Your task to perform on an android device: Open calendar and show me the first week of next month Image 0: 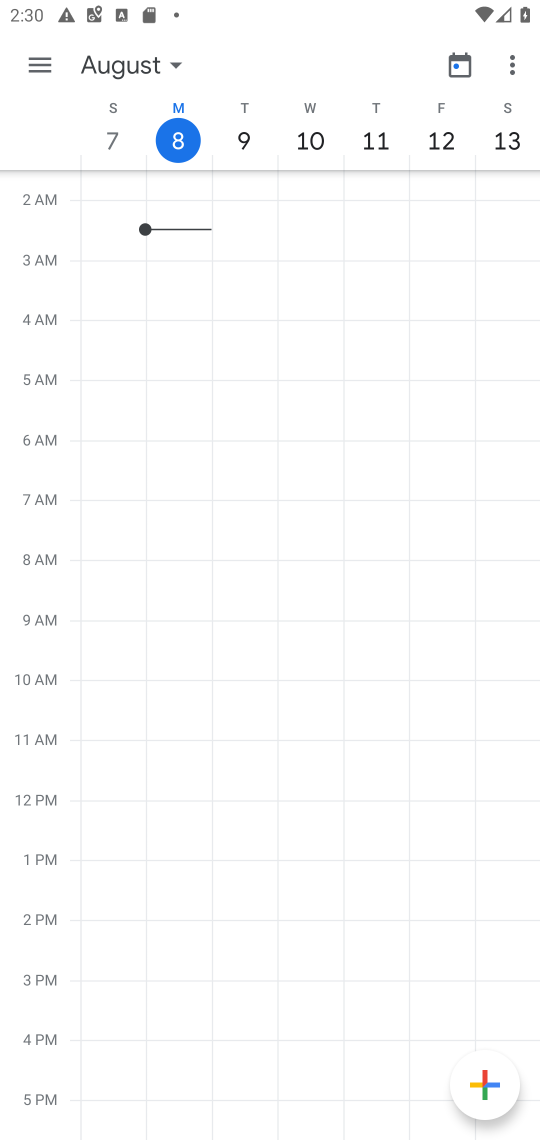
Step 0: press home button
Your task to perform on an android device: Open calendar and show me the first week of next month Image 1: 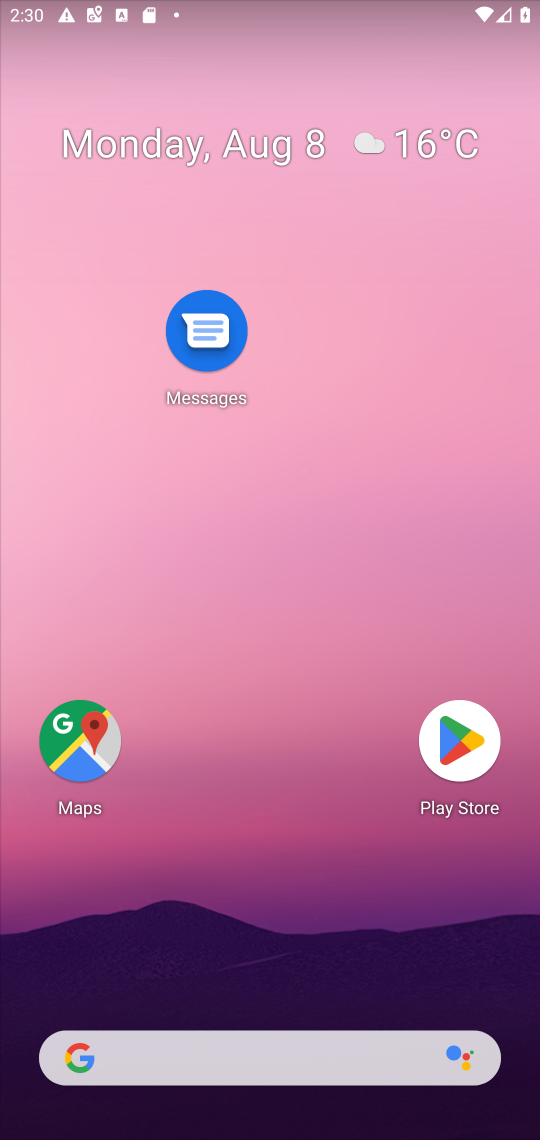
Step 1: drag from (313, 1072) to (288, 98)
Your task to perform on an android device: Open calendar and show me the first week of next month Image 2: 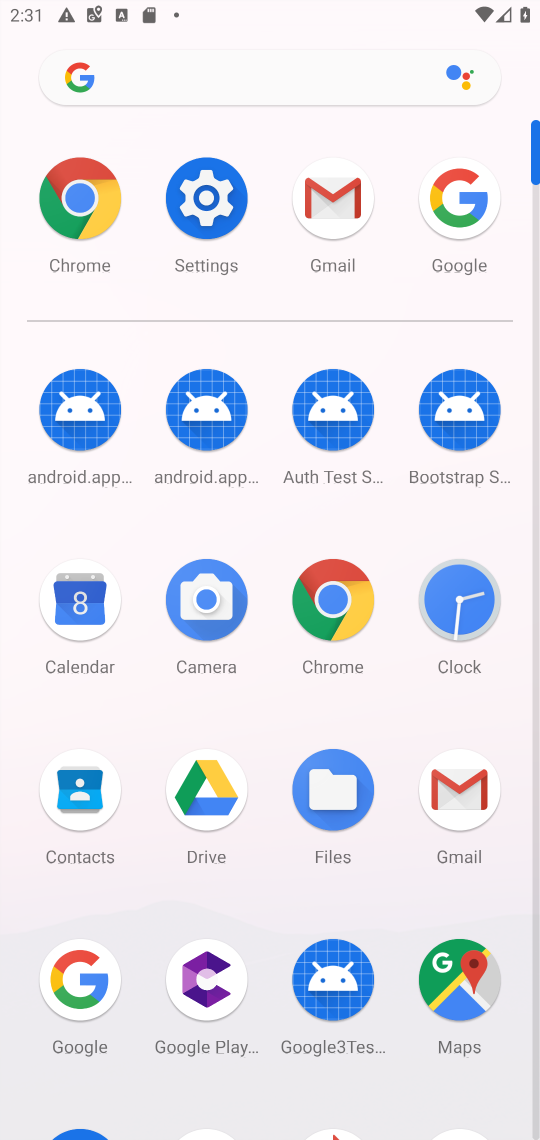
Step 2: click (77, 620)
Your task to perform on an android device: Open calendar and show me the first week of next month Image 3: 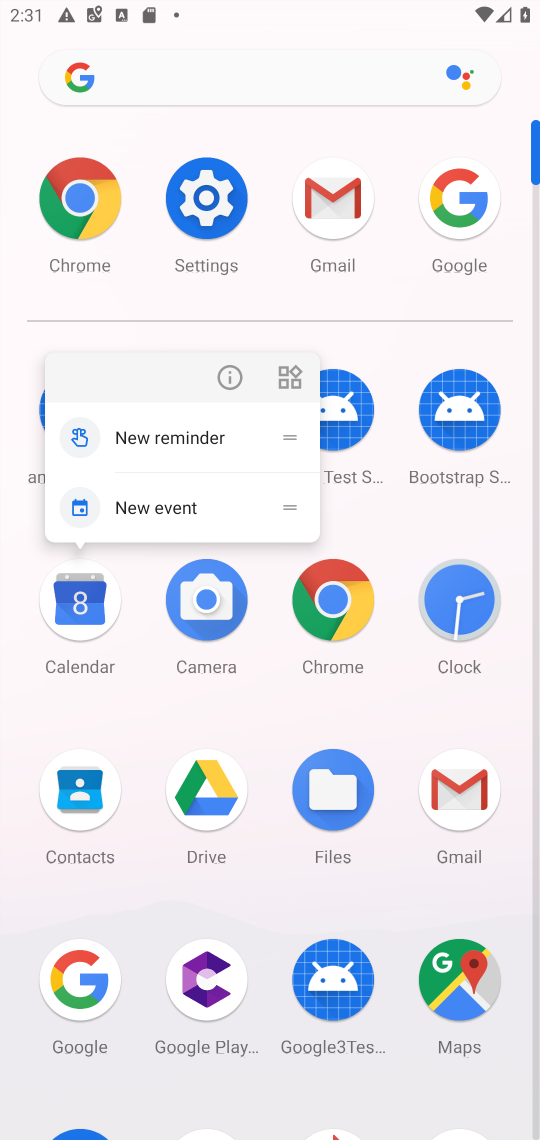
Step 3: click (77, 620)
Your task to perform on an android device: Open calendar and show me the first week of next month Image 4: 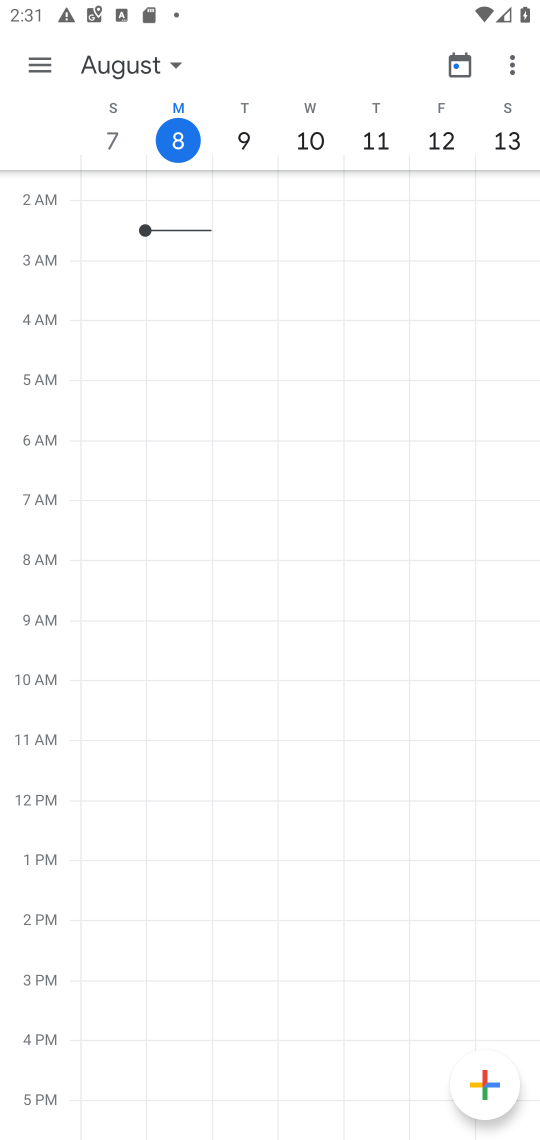
Step 4: click (179, 61)
Your task to perform on an android device: Open calendar and show me the first week of next month Image 5: 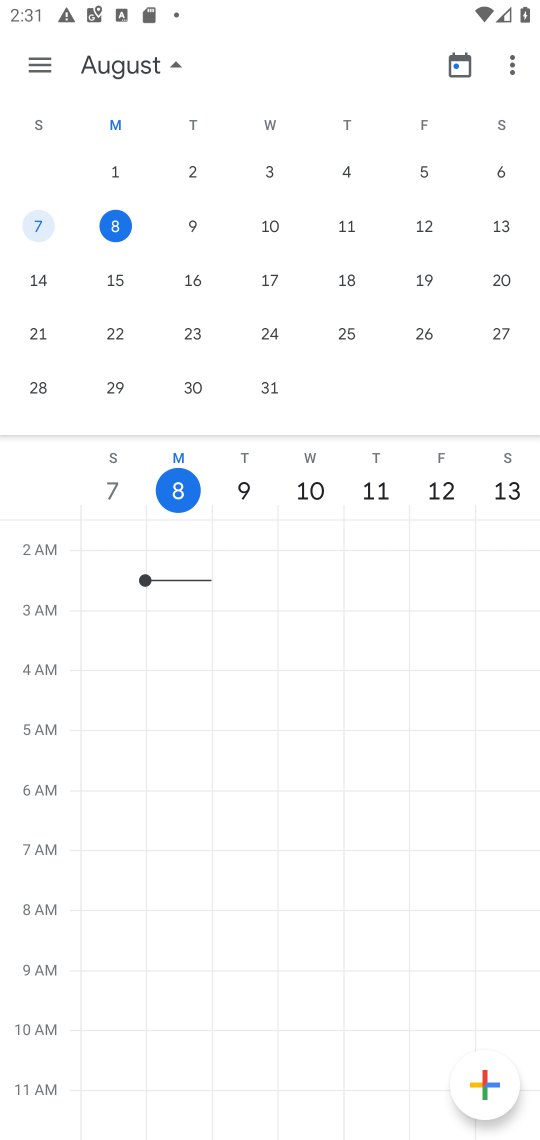
Step 5: task complete